Your task to perform on an android device: toggle show notifications on the lock screen Image 0: 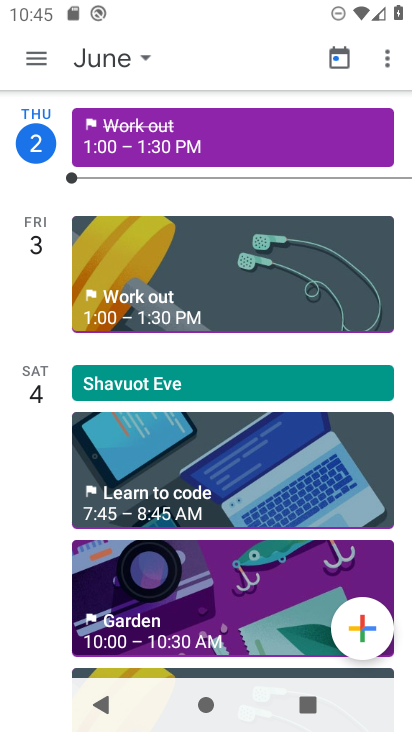
Step 0: press back button
Your task to perform on an android device: toggle show notifications on the lock screen Image 1: 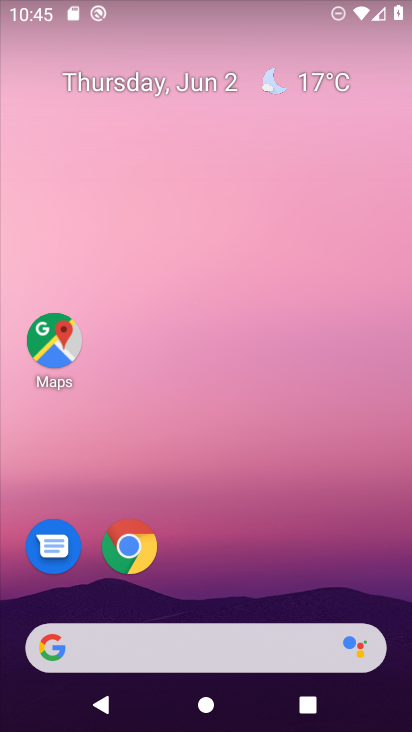
Step 1: drag from (263, 410) to (227, 6)
Your task to perform on an android device: toggle show notifications on the lock screen Image 2: 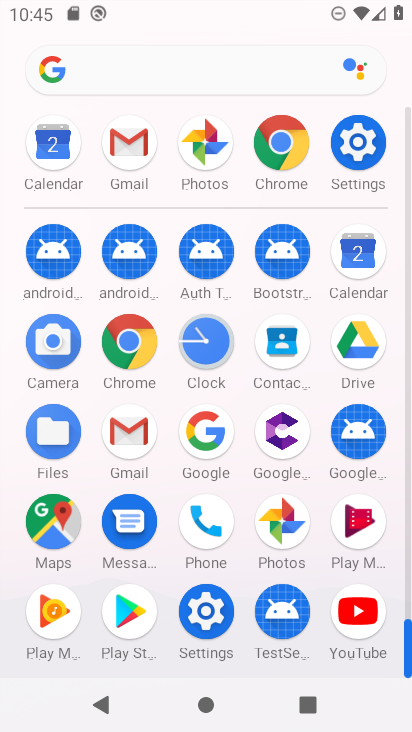
Step 2: click (206, 611)
Your task to perform on an android device: toggle show notifications on the lock screen Image 3: 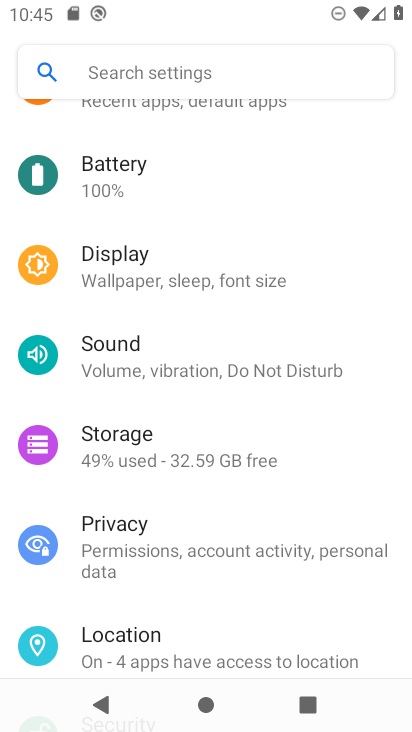
Step 3: drag from (238, 325) to (237, 508)
Your task to perform on an android device: toggle show notifications on the lock screen Image 4: 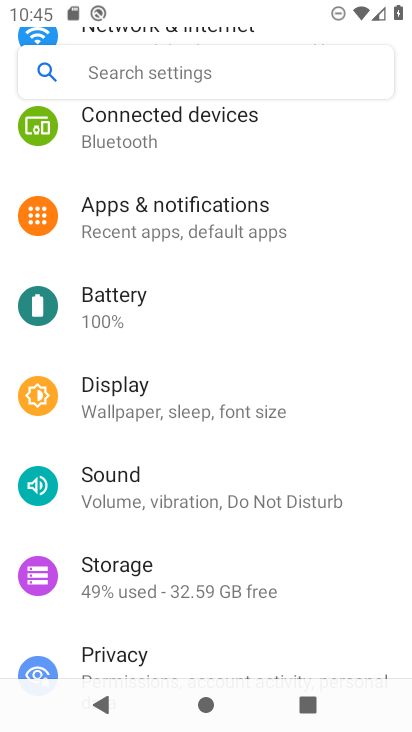
Step 4: click (196, 213)
Your task to perform on an android device: toggle show notifications on the lock screen Image 5: 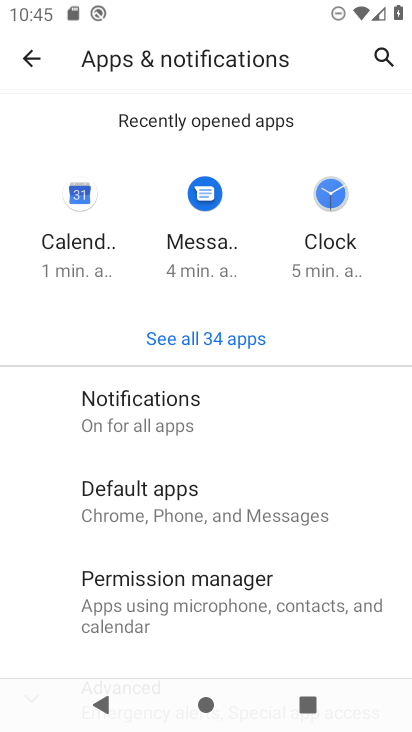
Step 5: drag from (287, 586) to (271, 207)
Your task to perform on an android device: toggle show notifications on the lock screen Image 6: 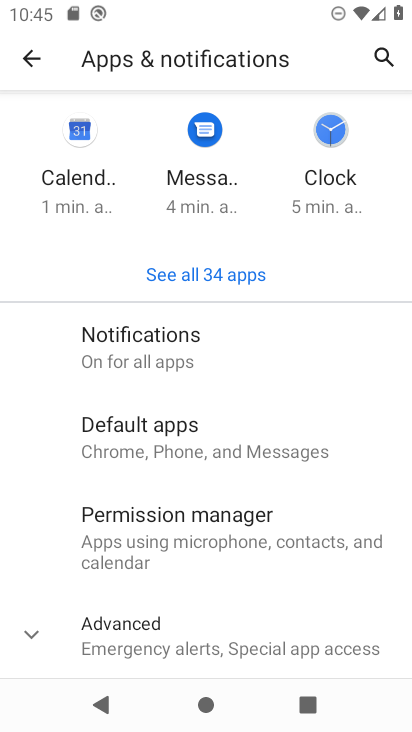
Step 6: click (39, 636)
Your task to perform on an android device: toggle show notifications on the lock screen Image 7: 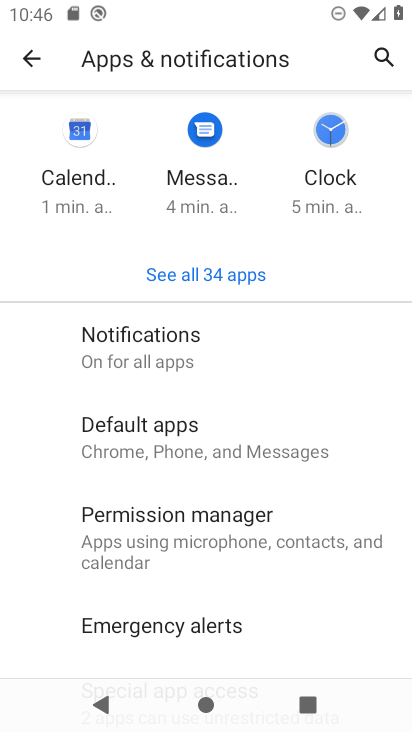
Step 7: click (189, 349)
Your task to perform on an android device: toggle show notifications on the lock screen Image 8: 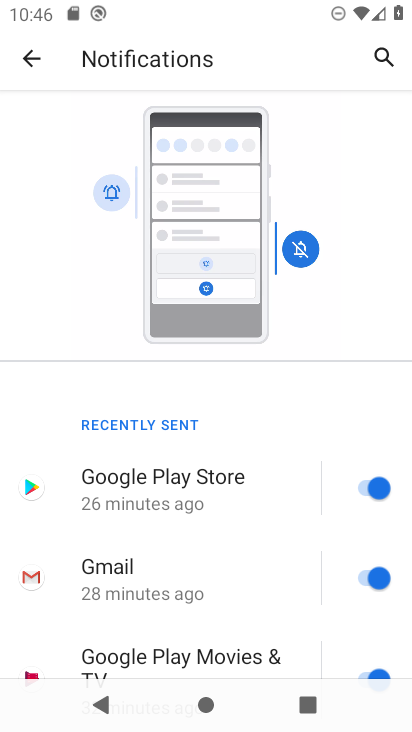
Step 8: drag from (229, 480) to (245, 158)
Your task to perform on an android device: toggle show notifications on the lock screen Image 9: 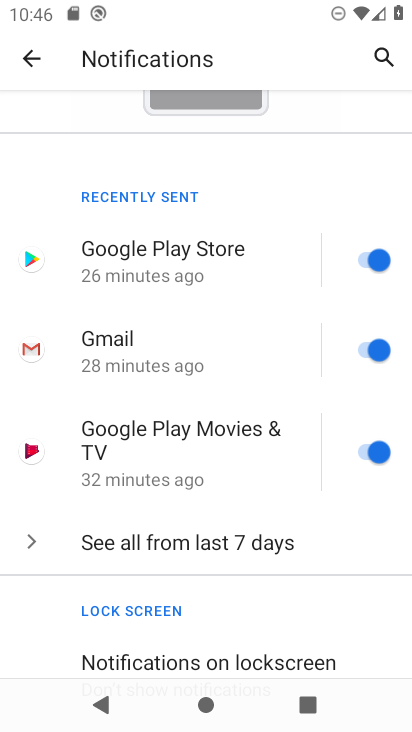
Step 9: drag from (227, 598) to (247, 160)
Your task to perform on an android device: toggle show notifications on the lock screen Image 10: 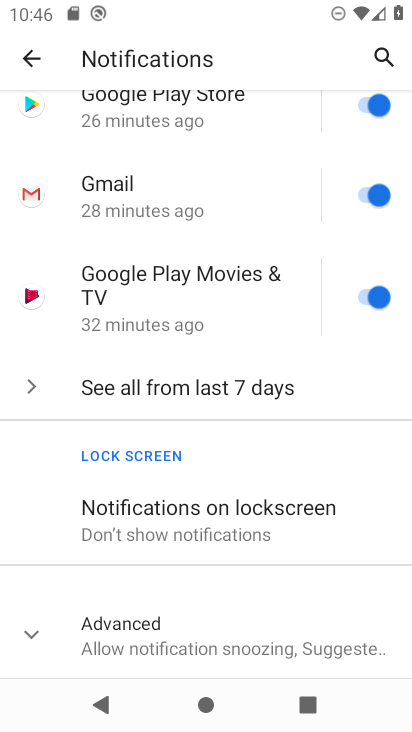
Step 10: click (191, 517)
Your task to perform on an android device: toggle show notifications on the lock screen Image 11: 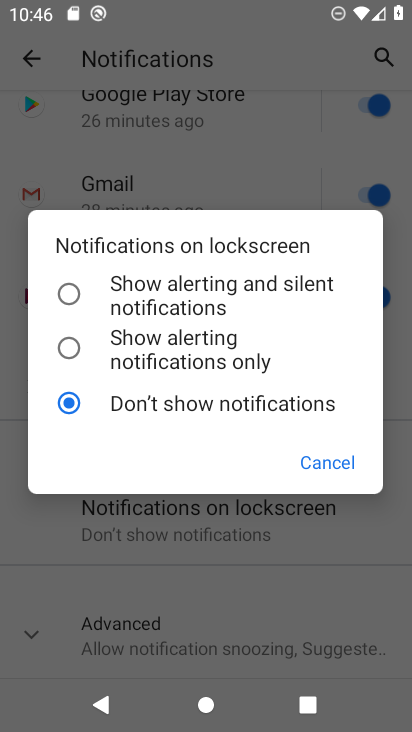
Step 11: click (161, 299)
Your task to perform on an android device: toggle show notifications on the lock screen Image 12: 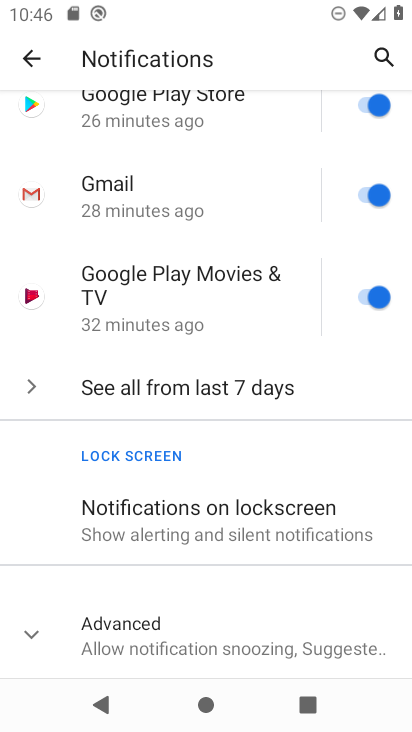
Step 12: task complete